Your task to perform on an android device: turn on javascript in the chrome app Image 0: 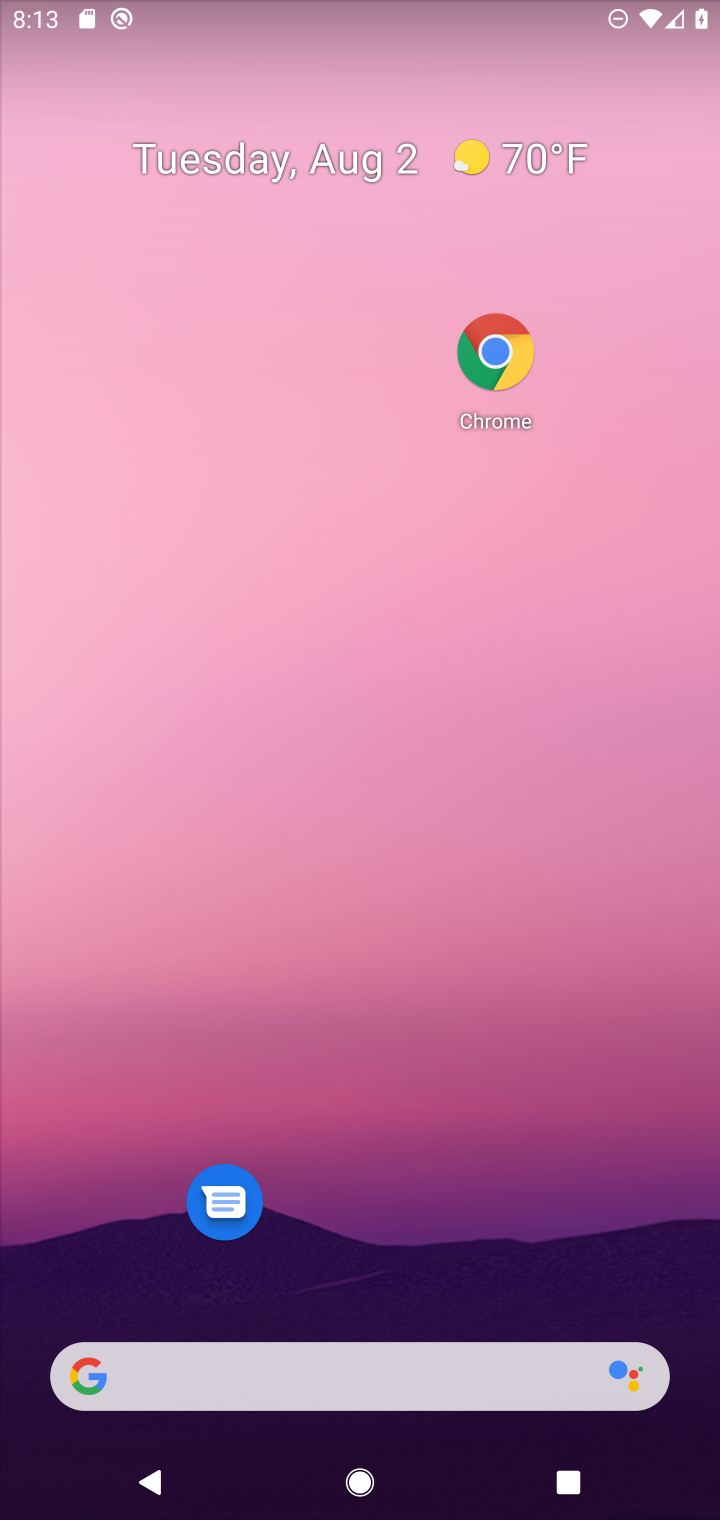
Step 0: click (488, 372)
Your task to perform on an android device: turn on javascript in the chrome app Image 1: 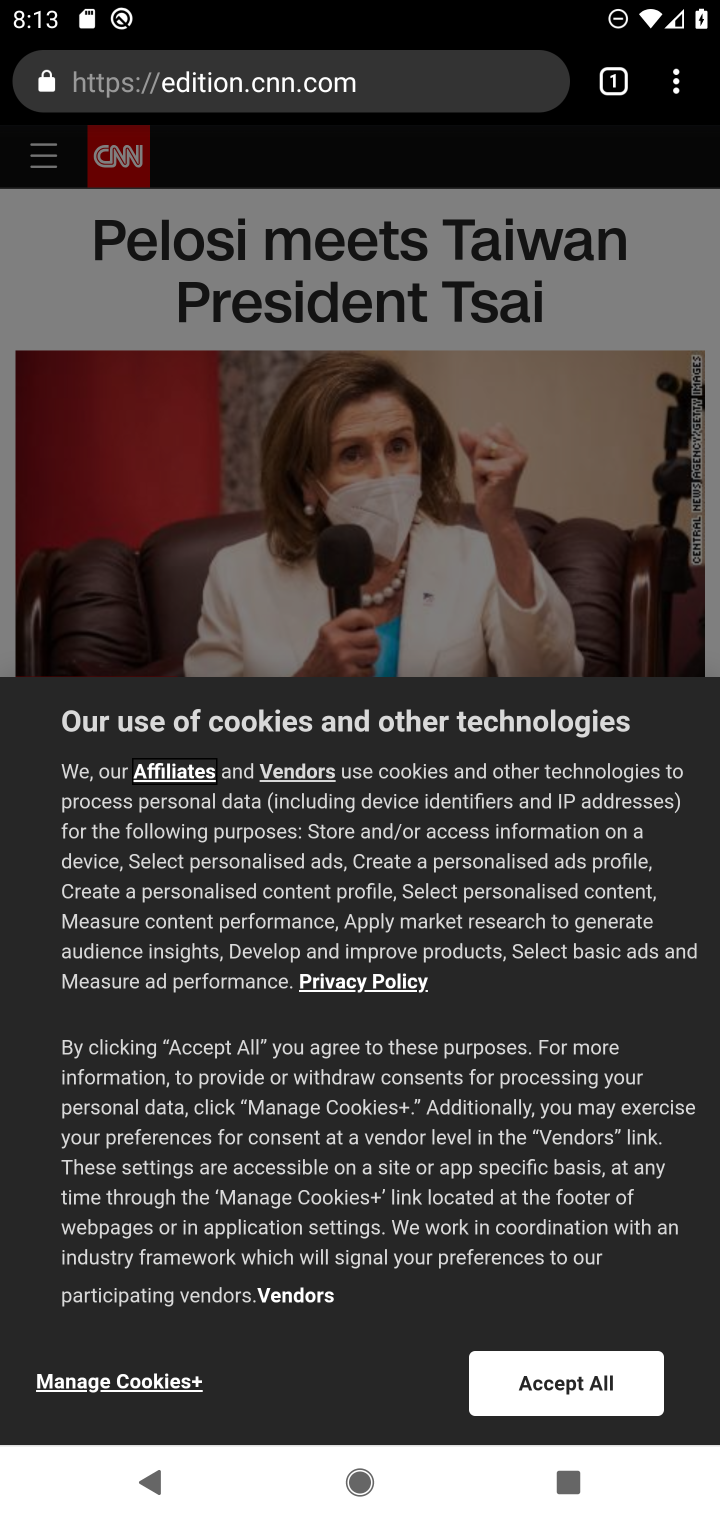
Step 1: click (669, 92)
Your task to perform on an android device: turn on javascript in the chrome app Image 2: 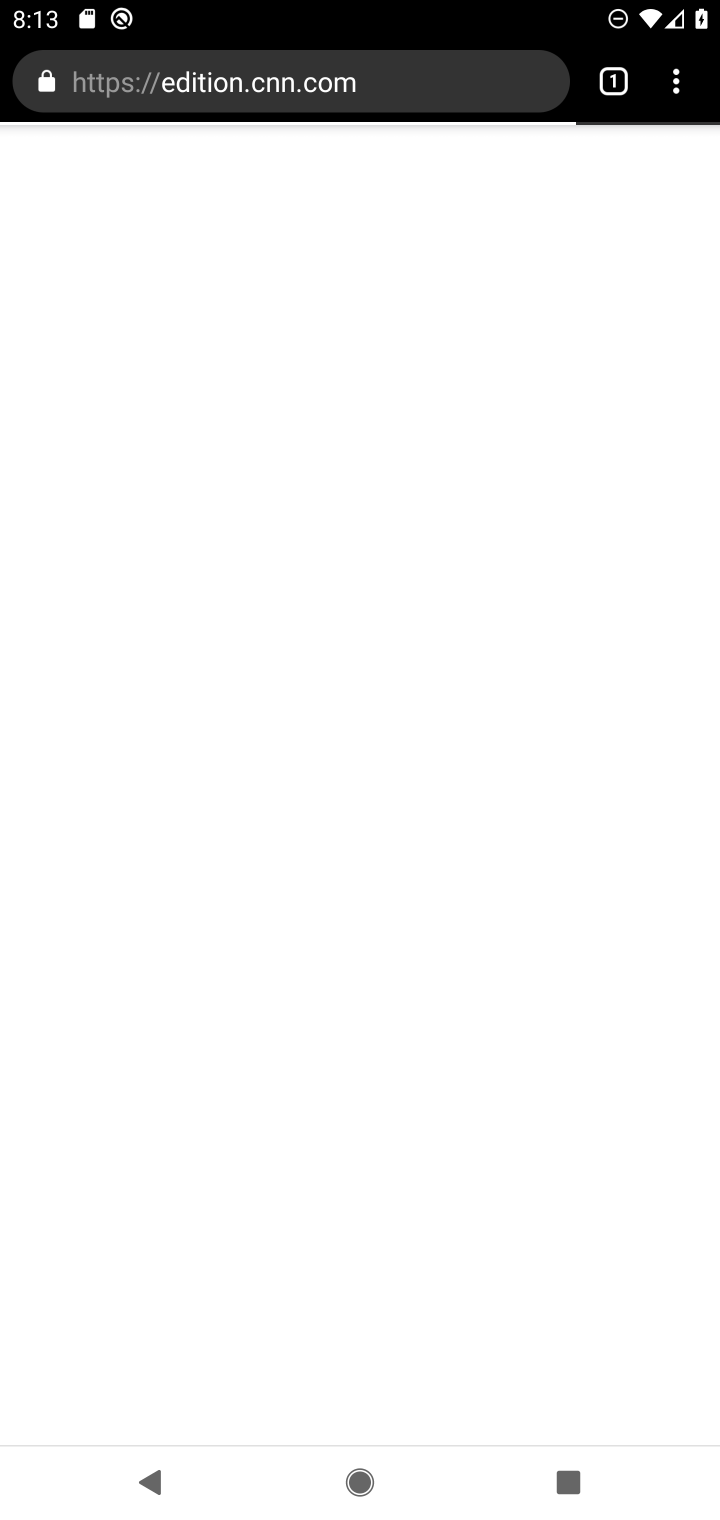
Step 2: click (679, 84)
Your task to perform on an android device: turn on javascript in the chrome app Image 3: 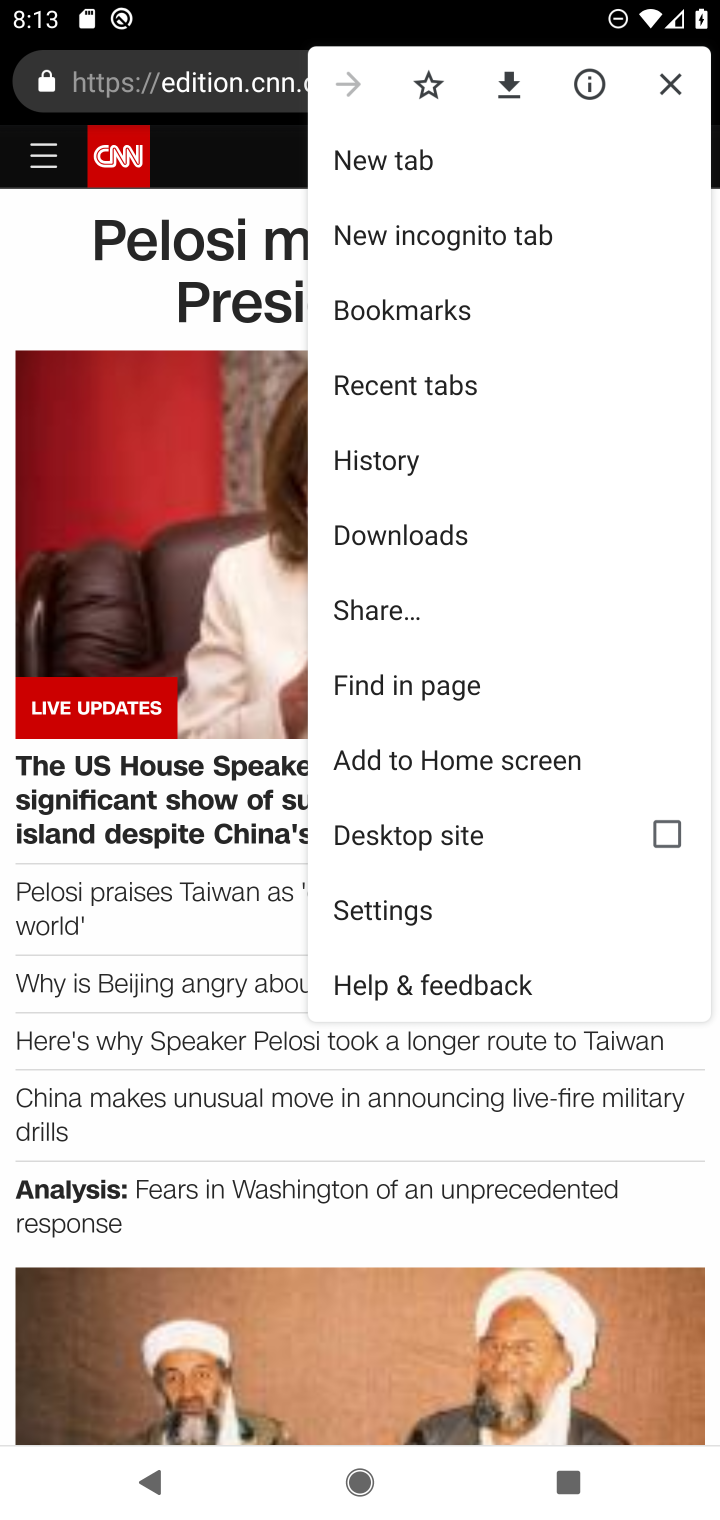
Step 3: click (389, 921)
Your task to perform on an android device: turn on javascript in the chrome app Image 4: 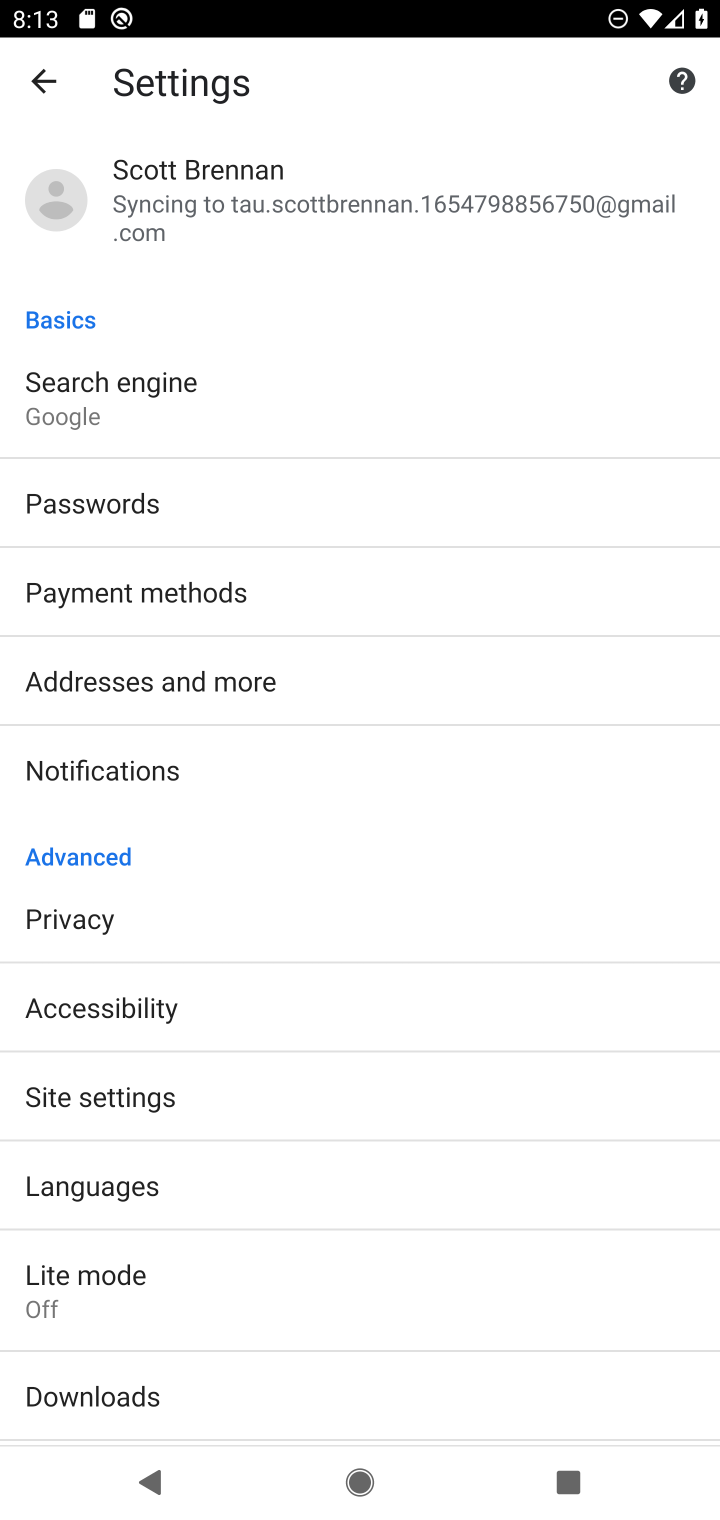
Step 4: click (155, 1094)
Your task to perform on an android device: turn on javascript in the chrome app Image 5: 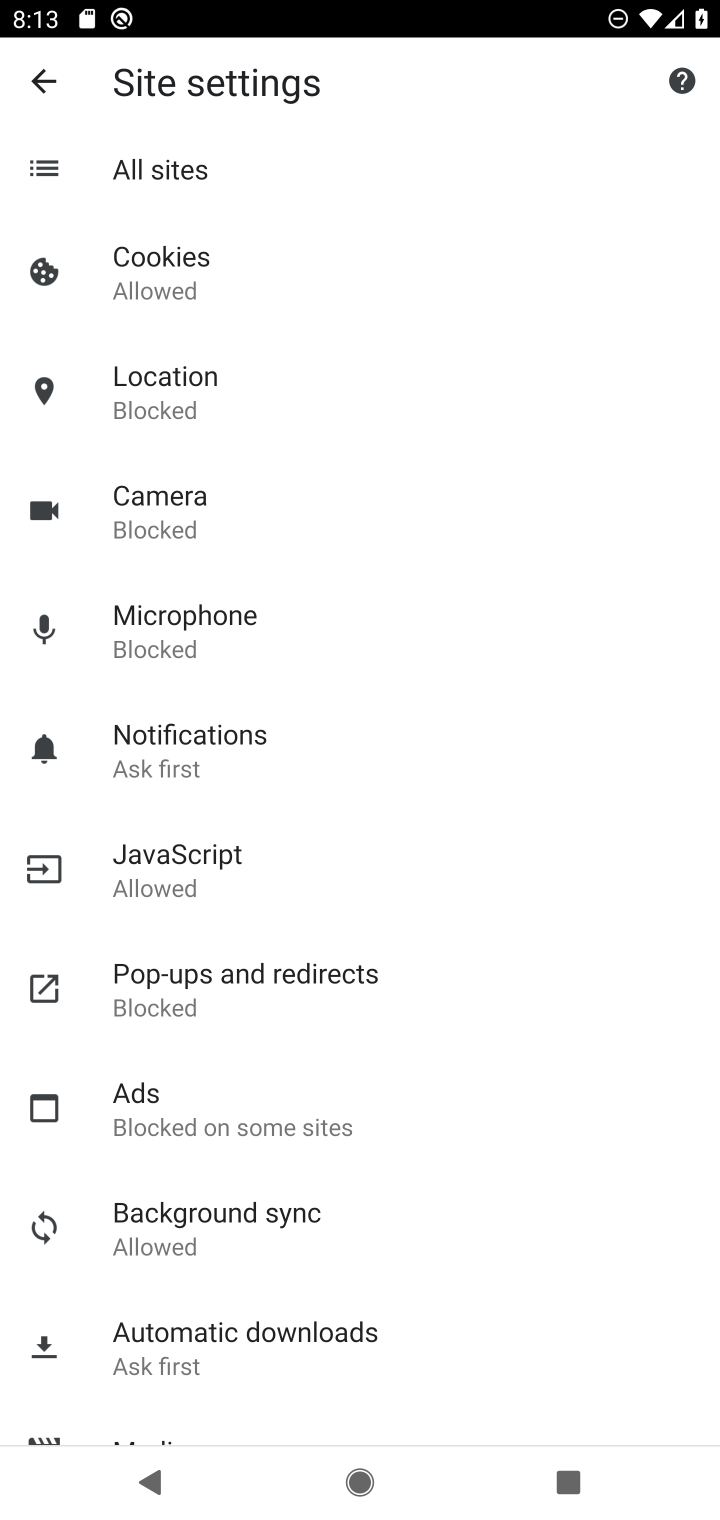
Step 5: click (162, 878)
Your task to perform on an android device: turn on javascript in the chrome app Image 6: 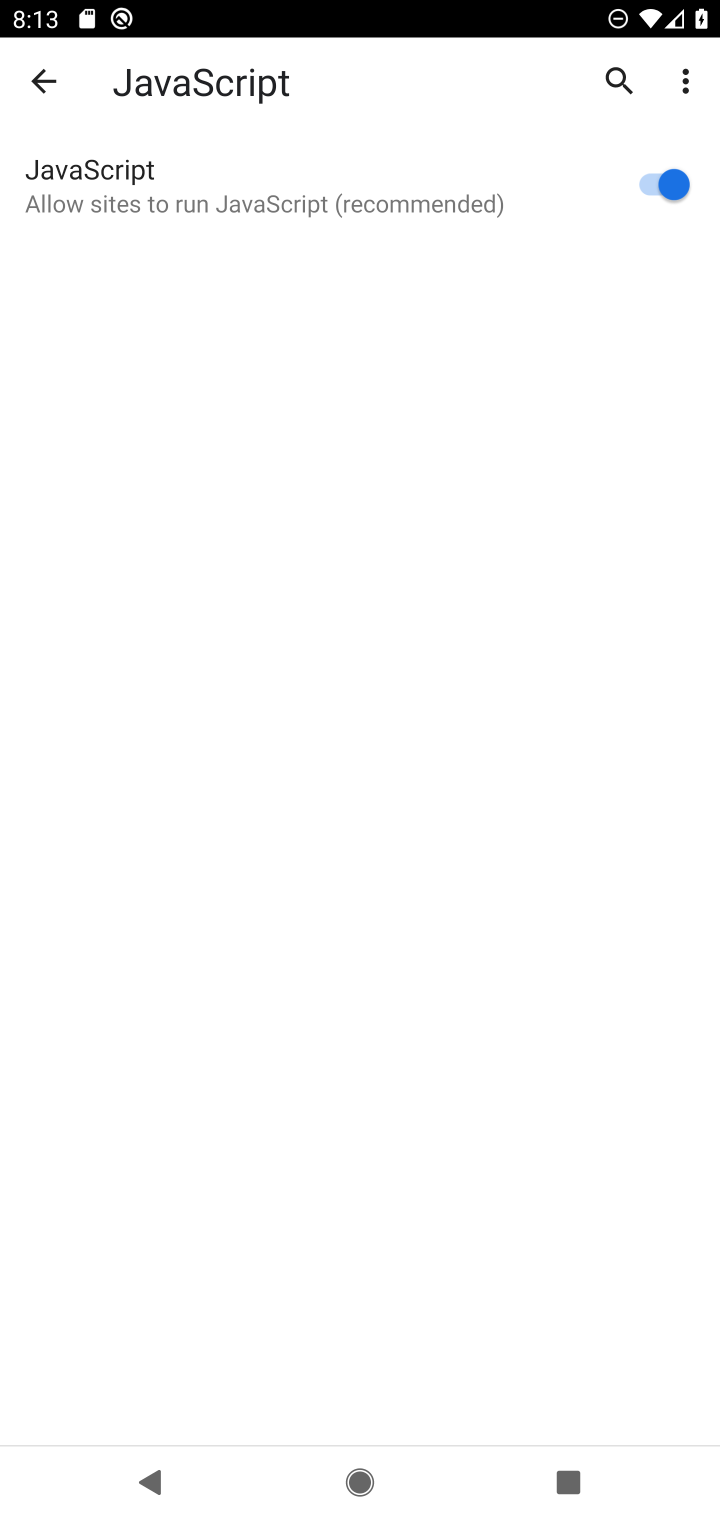
Step 6: task complete